Your task to perform on an android device: see creations saved in the google photos Image 0: 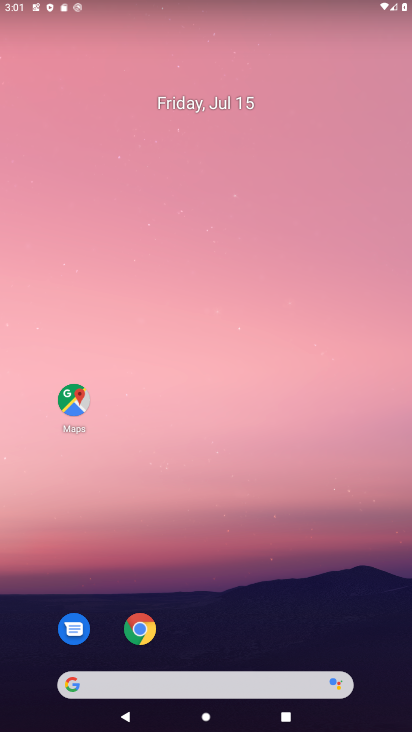
Step 0: press home button
Your task to perform on an android device: see creations saved in the google photos Image 1: 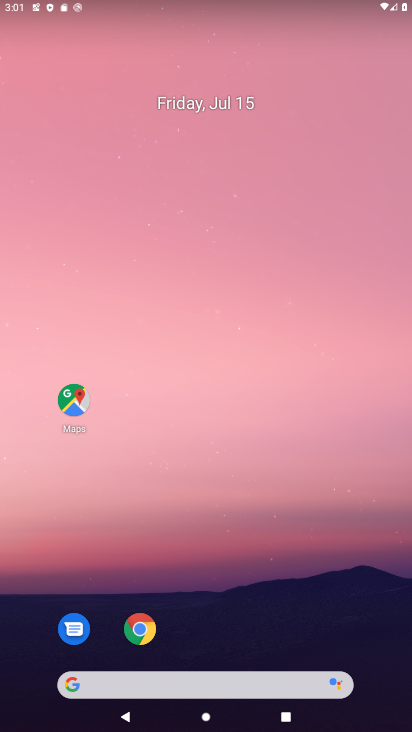
Step 1: drag from (208, 643) to (239, 109)
Your task to perform on an android device: see creations saved in the google photos Image 2: 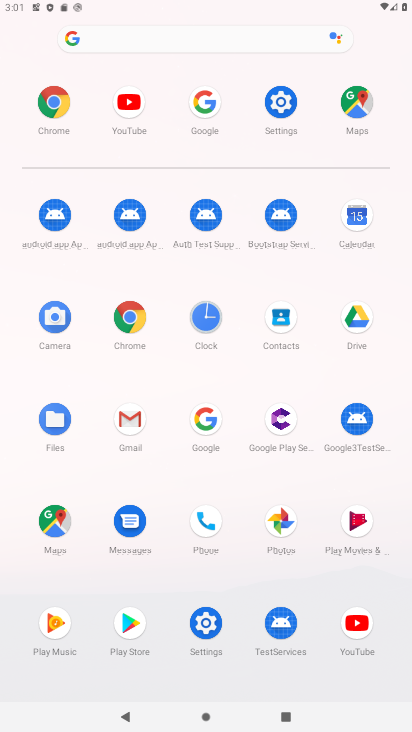
Step 2: click (283, 521)
Your task to perform on an android device: see creations saved in the google photos Image 3: 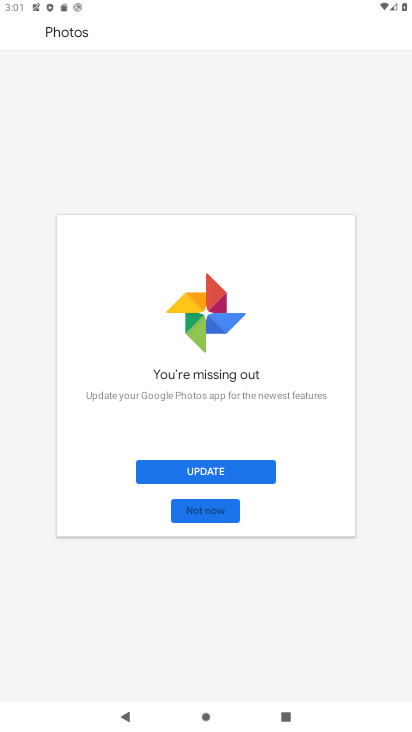
Step 3: click (185, 499)
Your task to perform on an android device: see creations saved in the google photos Image 4: 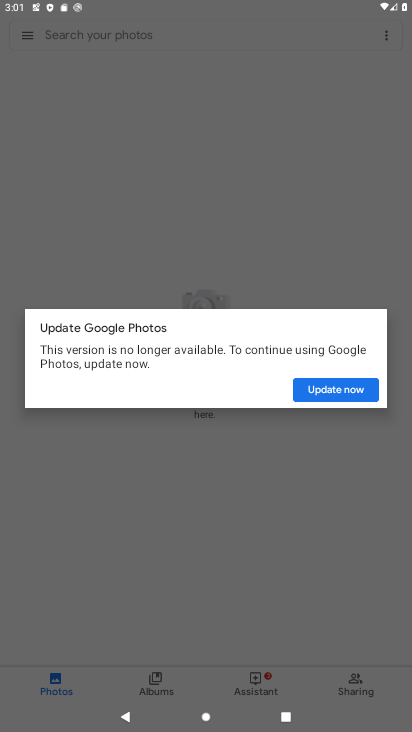
Step 4: click (345, 385)
Your task to perform on an android device: see creations saved in the google photos Image 5: 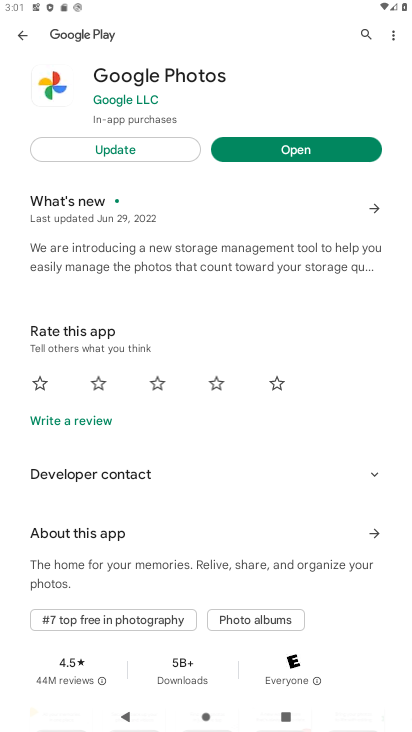
Step 5: click (141, 143)
Your task to perform on an android device: see creations saved in the google photos Image 6: 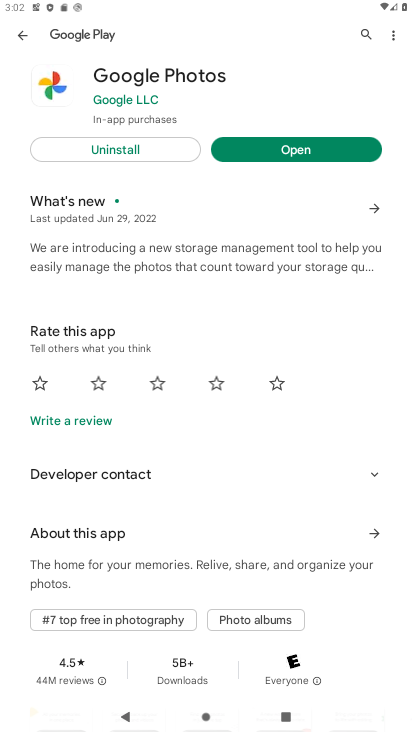
Step 6: click (273, 151)
Your task to perform on an android device: see creations saved in the google photos Image 7: 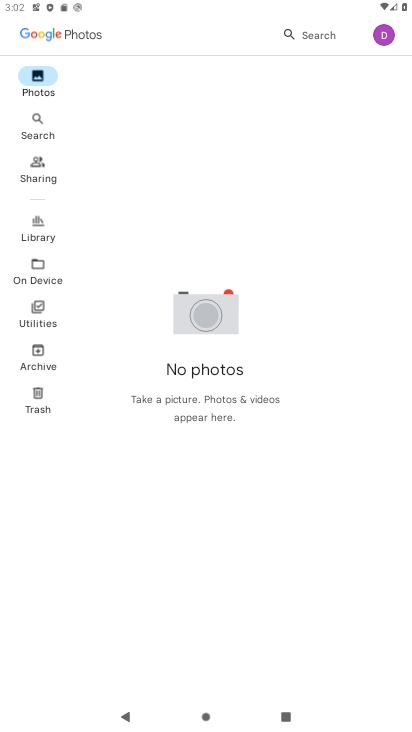
Step 7: click (311, 36)
Your task to perform on an android device: see creations saved in the google photos Image 8: 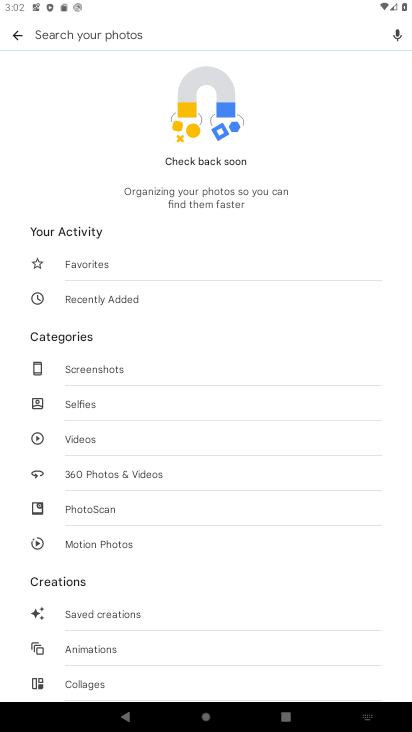
Step 8: click (104, 610)
Your task to perform on an android device: see creations saved in the google photos Image 9: 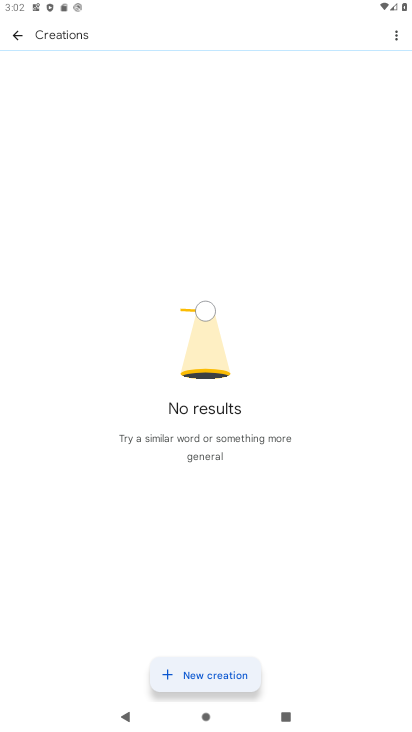
Step 9: task complete